Your task to perform on an android device: change the clock display to analog Image 0: 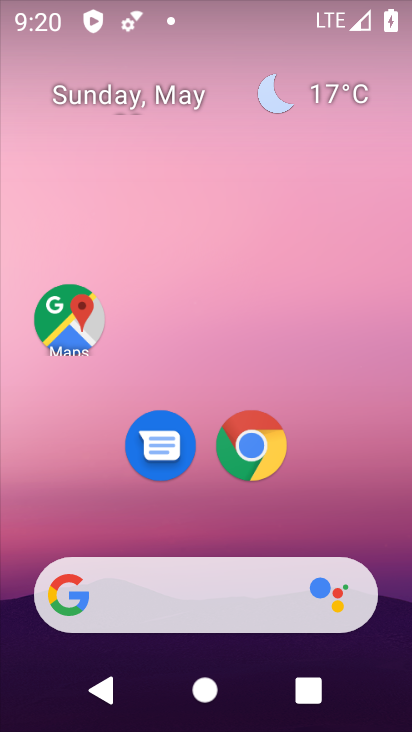
Step 0: click (406, 527)
Your task to perform on an android device: change the clock display to analog Image 1: 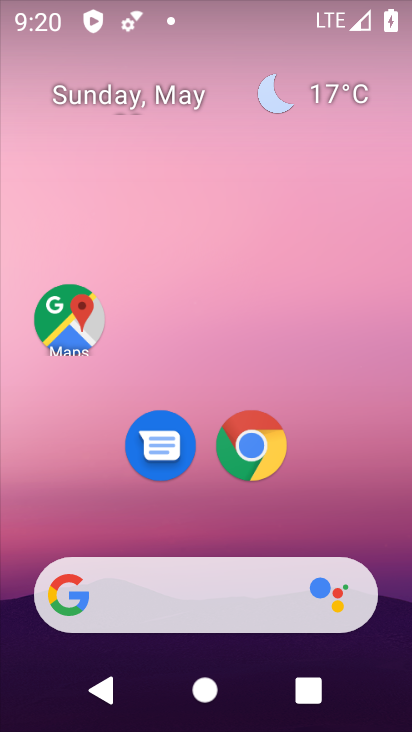
Step 1: drag from (212, 546) to (210, 130)
Your task to perform on an android device: change the clock display to analog Image 2: 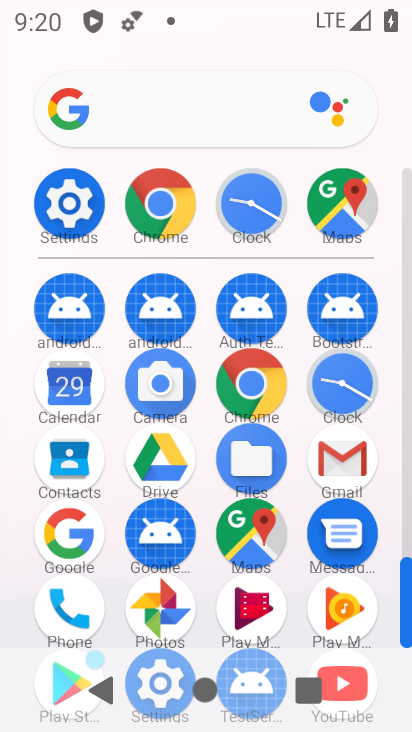
Step 2: click (65, 197)
Your task to perform on an android device: change the clock display to analog Image 3: 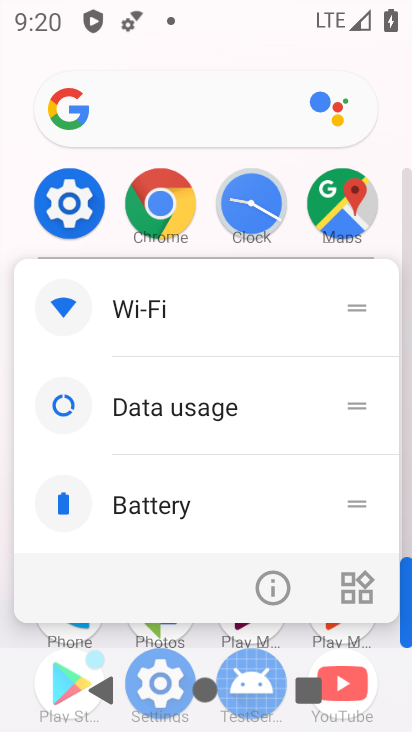
Step 3: press back button
Your task to perform on an android device: change the clock display to analog Image 4: 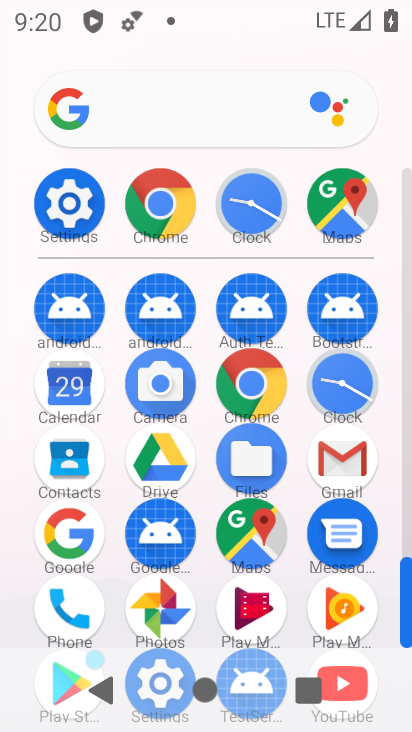
Step 4: click (342, 383)
Your task to perform on an android device: change the clock display to analog Image 5: 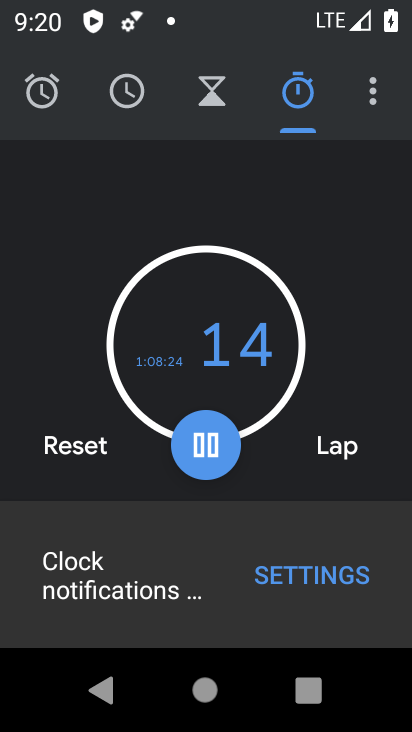
Step 5: click (378, 82)
Your task to perform on an android device: change the clock display to analog Image 6: 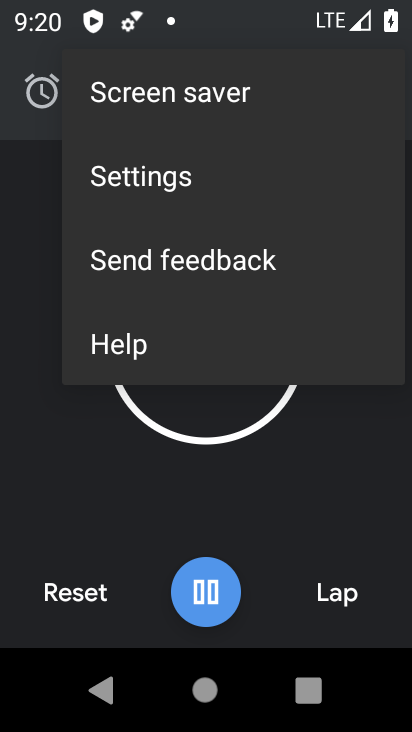
Step 6: click (206, 180)
Your task to perform on an android device: change the clock display to analog Image 7: 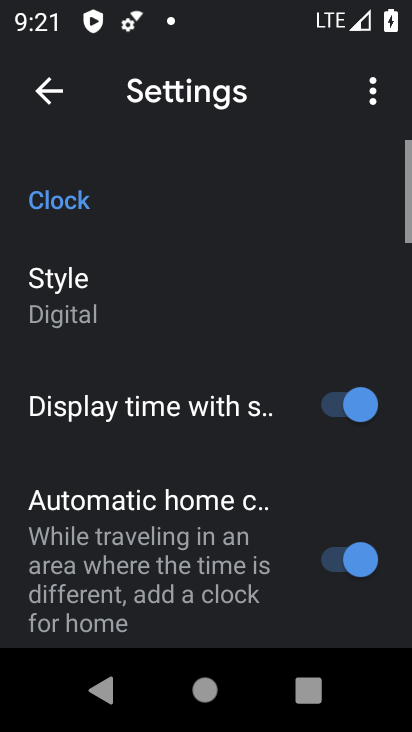
Step 7: drag from (232, 462) to (291, 244)
Your task to perform on an android device: change the clock display to analog Image 8: 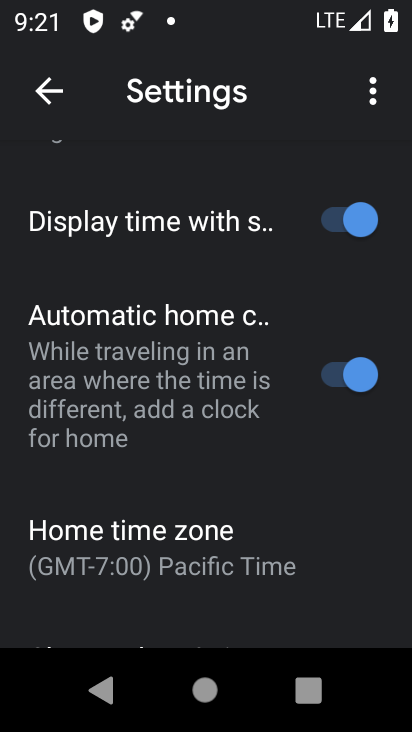
Step 8: drag from (245, 205) to (235, 510)
Your task to perform on an android device: change the clock display to analog Image 9: 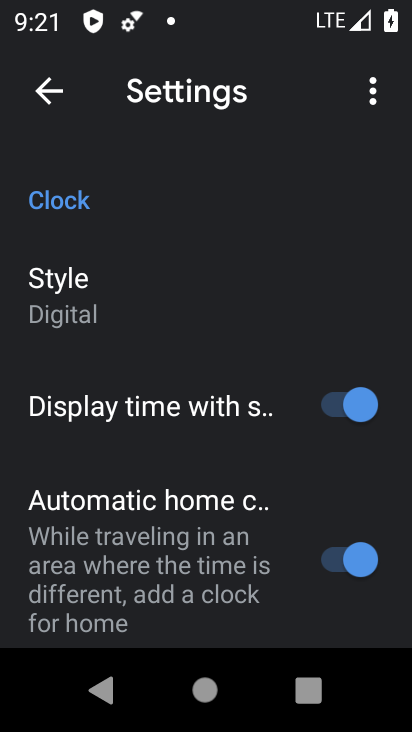
Step 9: click (127, 297)
Your task to perform on an android device: change the clock display to analog Image 10: 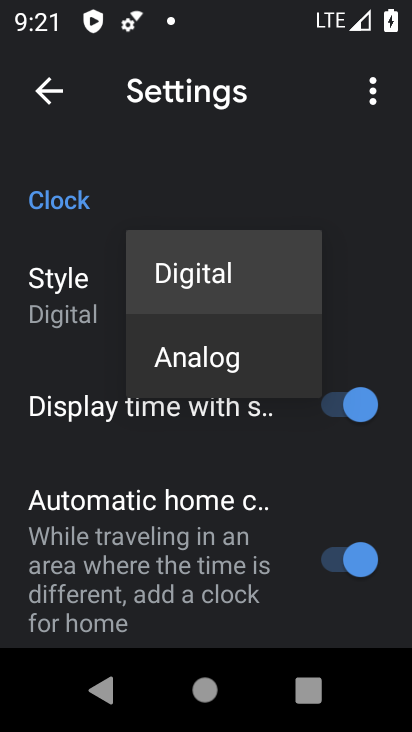
Step 10: click (235, 358)
Your task to perform on an android device: change the clock display to analog Image 11: 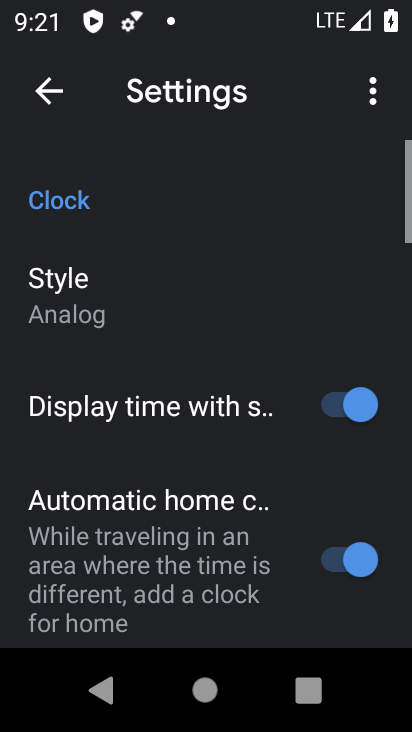
Step 11: task complete